Your task to perform on an android device: find snoozed emails in the gmail app Image 0: 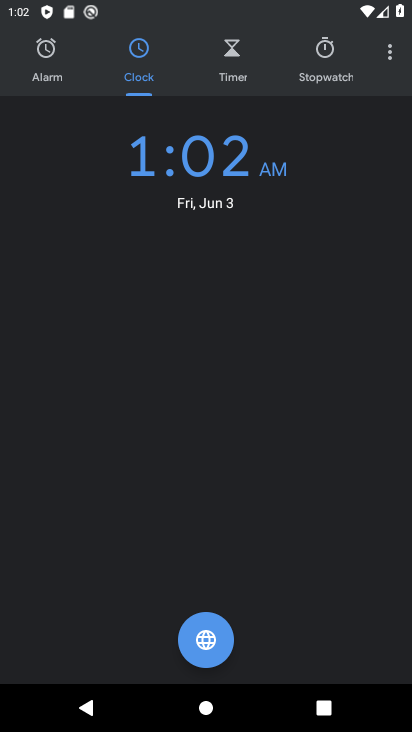
Step 0: press home button
Your task to perform on an android device: find snoozed emails in the gmail app Image 1: 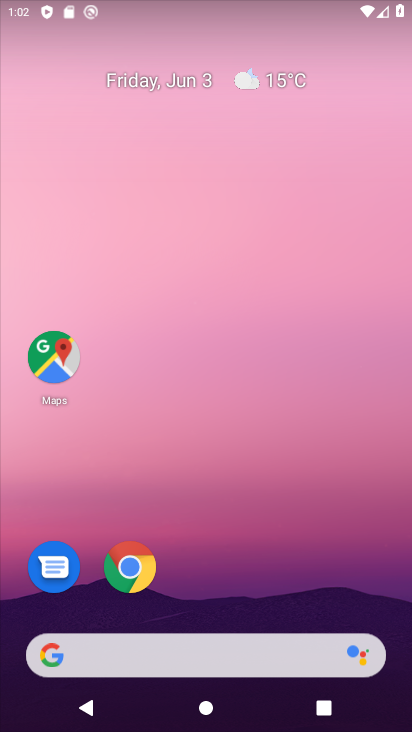
Step 1: drag from (296, 585) to (326, 35)
Your task to perform on an android device: find snoozed emails in the gmail app Image 2: 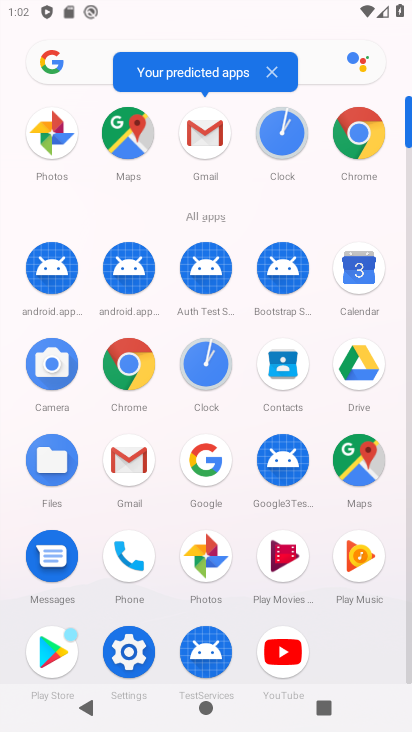
Step 2: click (119, 459)
Your task to perform on an android device: find snoozed emails in the gmail app Image 3: 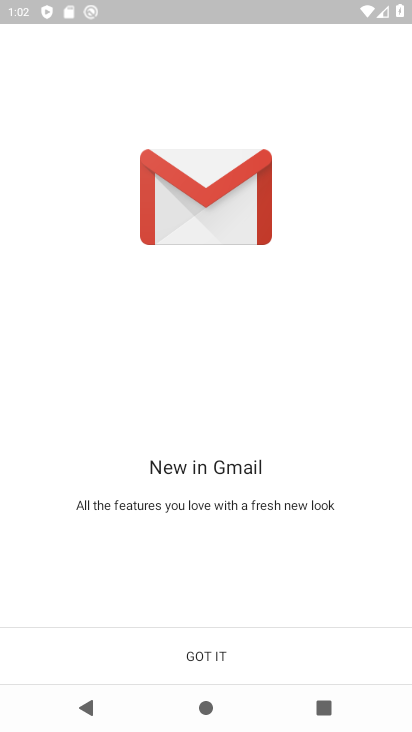
Step 3: click (202, 653)
Your task to perform on an android device: find snoozed emails in the gmail app Image 4: 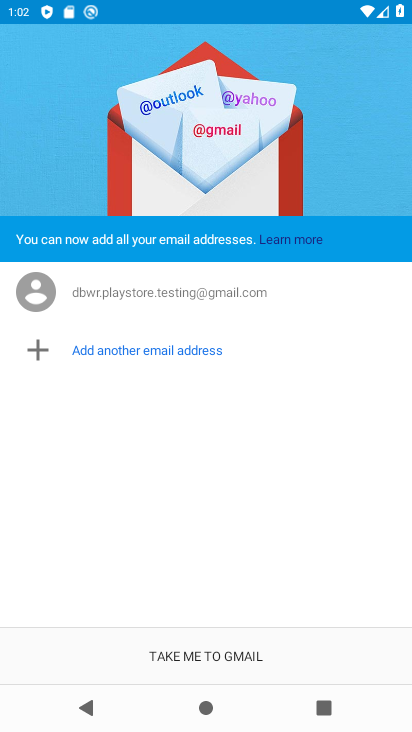
Step 4: click (202, 653)
Your task to perform on an android device: find snoozed emails in the gmail app Image 5: 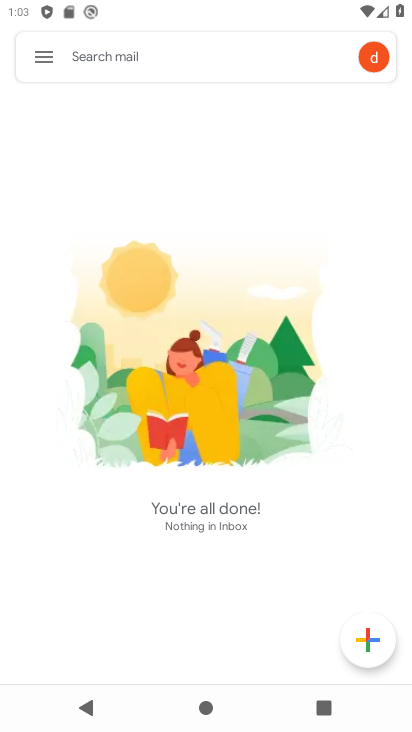
Step 5: click (46, 58)
Your task to perform on an android device: find snoozed emails in the gmail app Image 6: 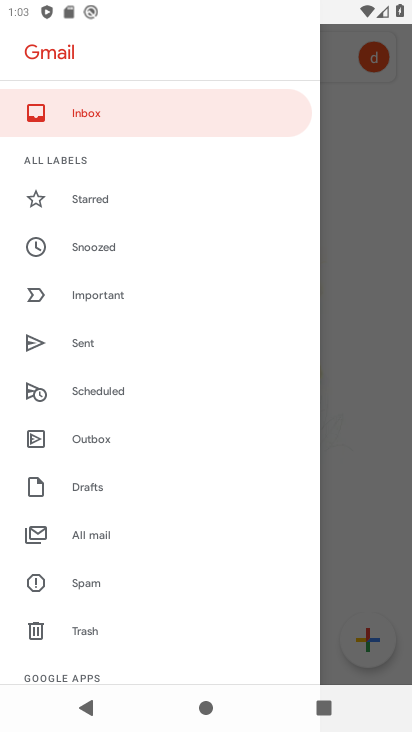
Step 6: click (85, 242)
Your task to perform on an android device: find snoozed emails in the gmail app Image 7: 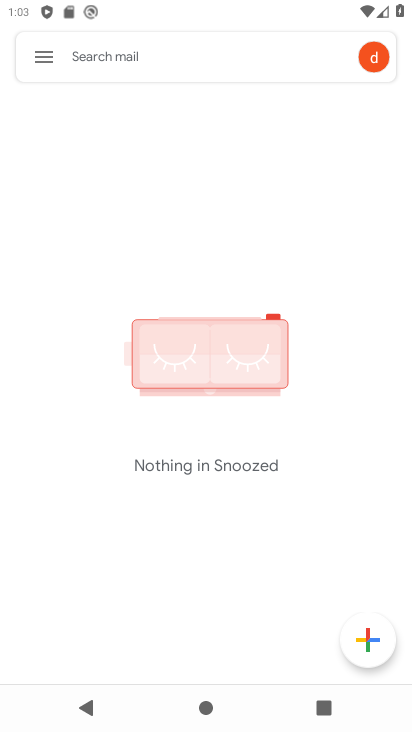
Step 7: task complete